Your task to perform on an android device: See recent photos Image 0: 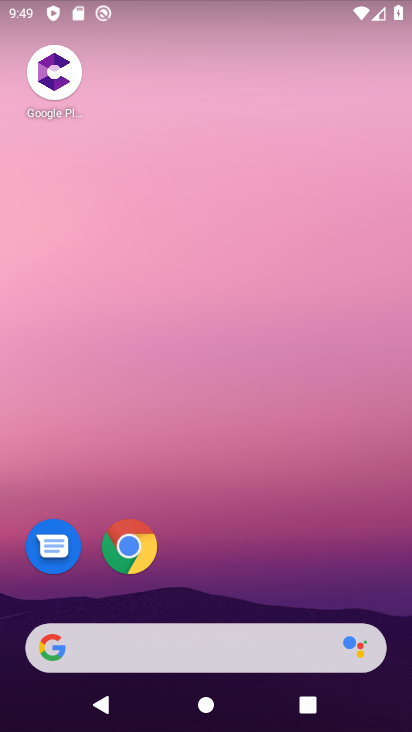
Step 0: drag from (204, 723) to (192, 162)
Your task to perform on an android device: See recent photos Image 1: 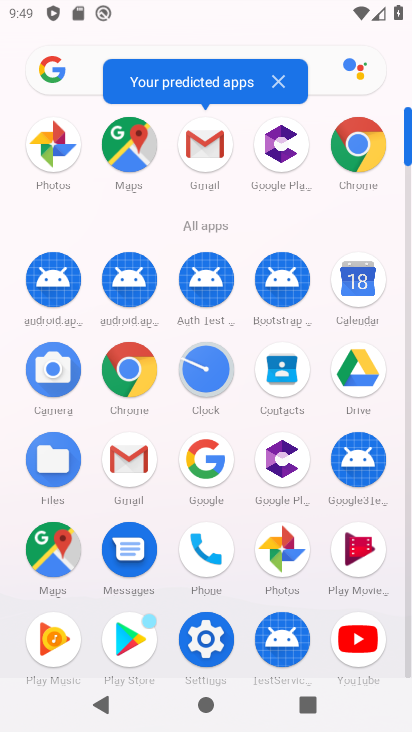
Step 1: click (51, 147)
Your task to perform on an android device: See recent photos Image 2: 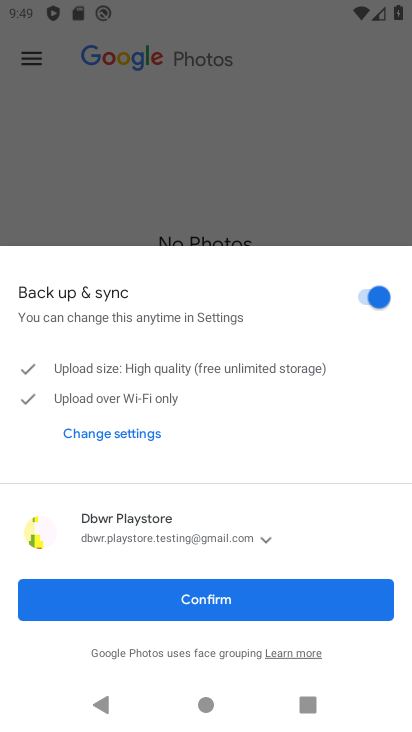
Step 2: click (233, 604)
Your task to perform on an android device: See recent photos Image 3: 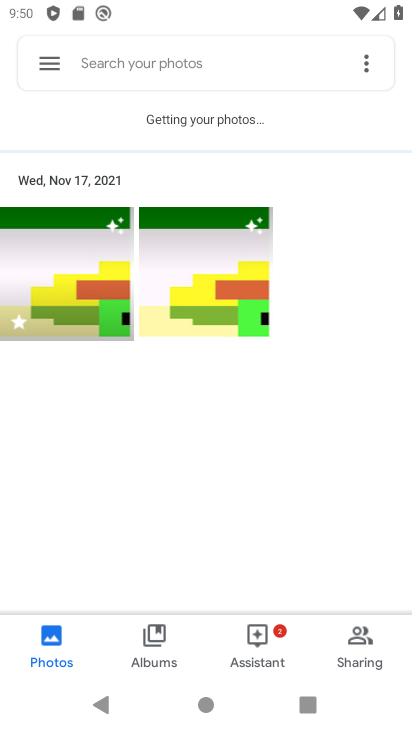
Step 3: click (73, 288)
Your task to perform on an android device: See recent photos Image 4: 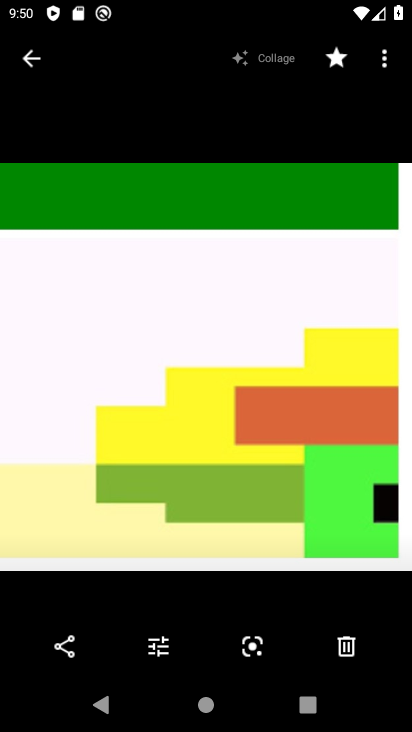
Step 4: task complete